Your task to perform on an android device: What's the weather going to be this weekend? Image 0: 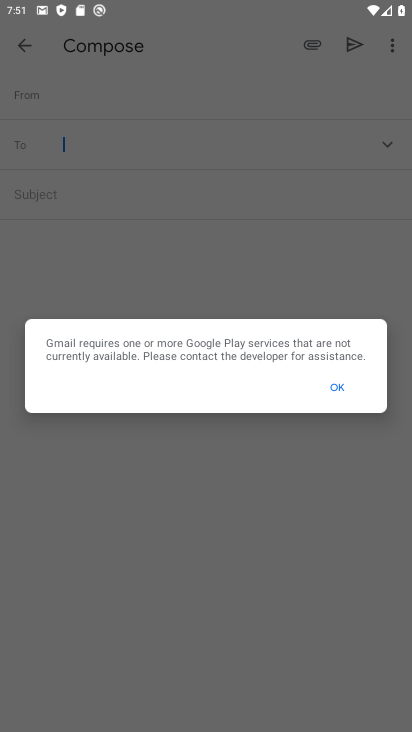
Step 0: press home button
Your task to perform on an android device: What's the weather going to be this weekend? Image 1: 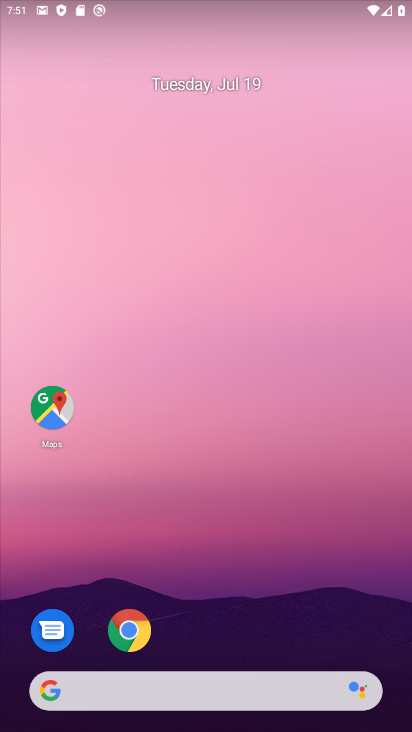
Step 1: click (94, 686)
Your task to perform on an android device: What's the weather going to be this weekend? Image 2: 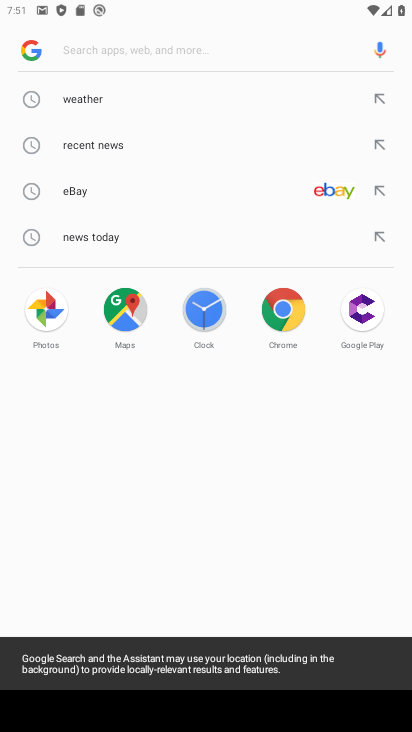
Step 2: click (86, 97)
Your task to perform on an android device: What's the weather going to be this weekend? Image 3: 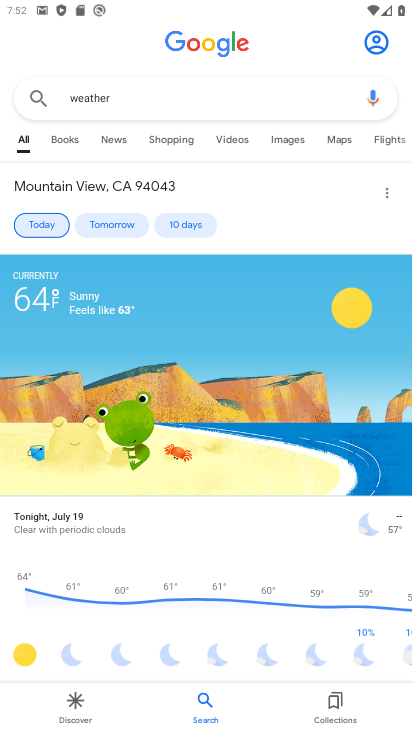
Step 3: task complete